Your task to perform on an android device: Open Chrome and go to settings Image 0: 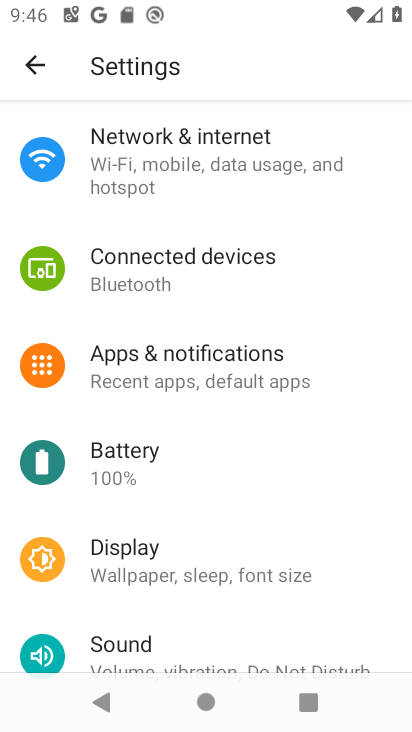
Step 0: press home button
Your task to perform on an android device: Open Chrome and go to settings Image 1: 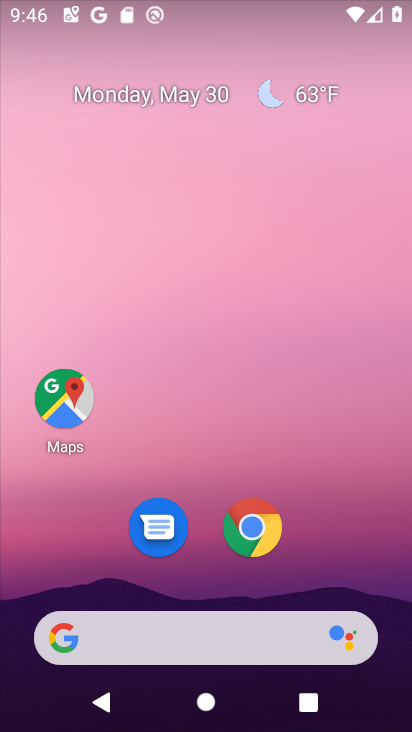
Step 1: click (253, 520)
Your task to perform on an android device: Open Chrome and go to settings Image 2: 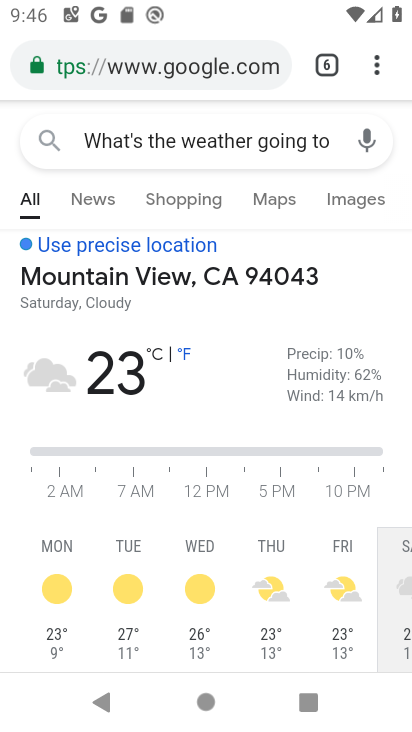
Step 2: click (384, 57)
Your task to perform on an android device: Open Chrome and go to settings Image 3: 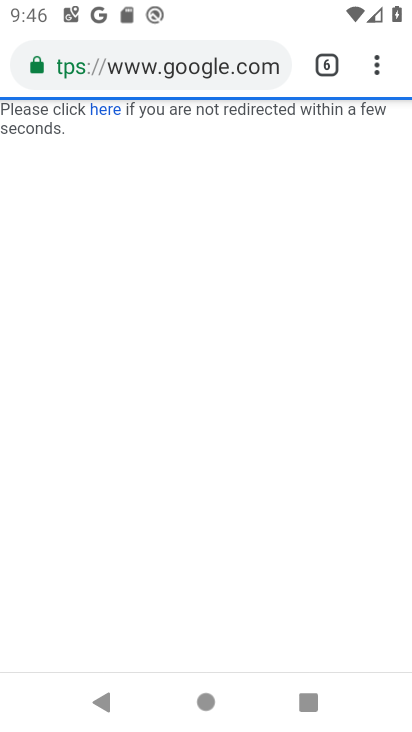
Step 3: click (384, 57)
Your task to perform on an android device: Open Chrome and go to settings Image 4: 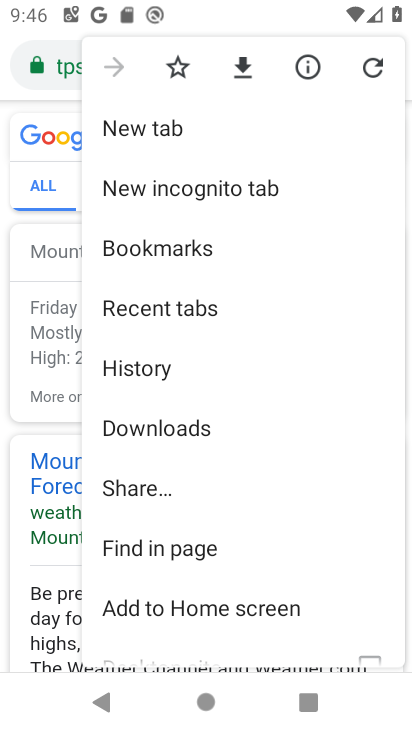
Step 4: drag from (199, 504) to (243, 263)
Your task to perform on an android device: Open Chrome and go to settings Image 5: 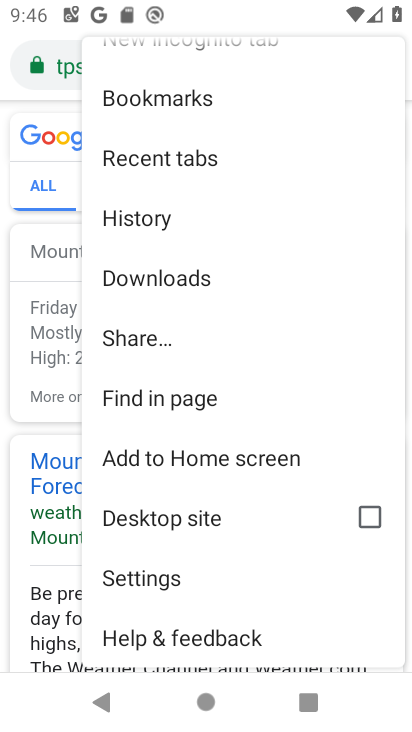
Step 5: click (188, 586)
Your task to perform on an android device: Open Chrome and go to settings Image 6: 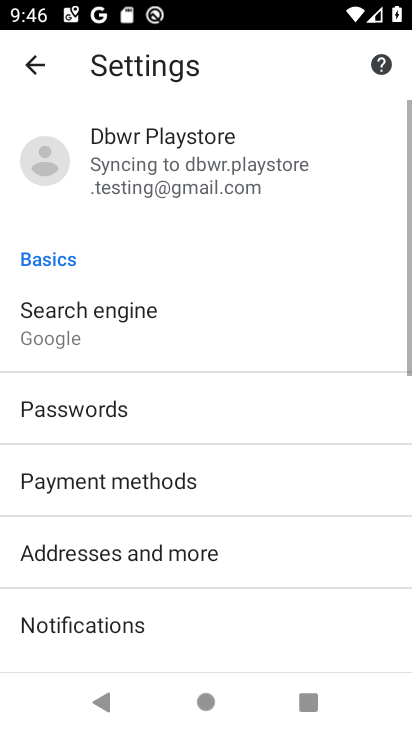
Step 6: task complete